Your task to perform on an android device: Open my contact list Image 0: 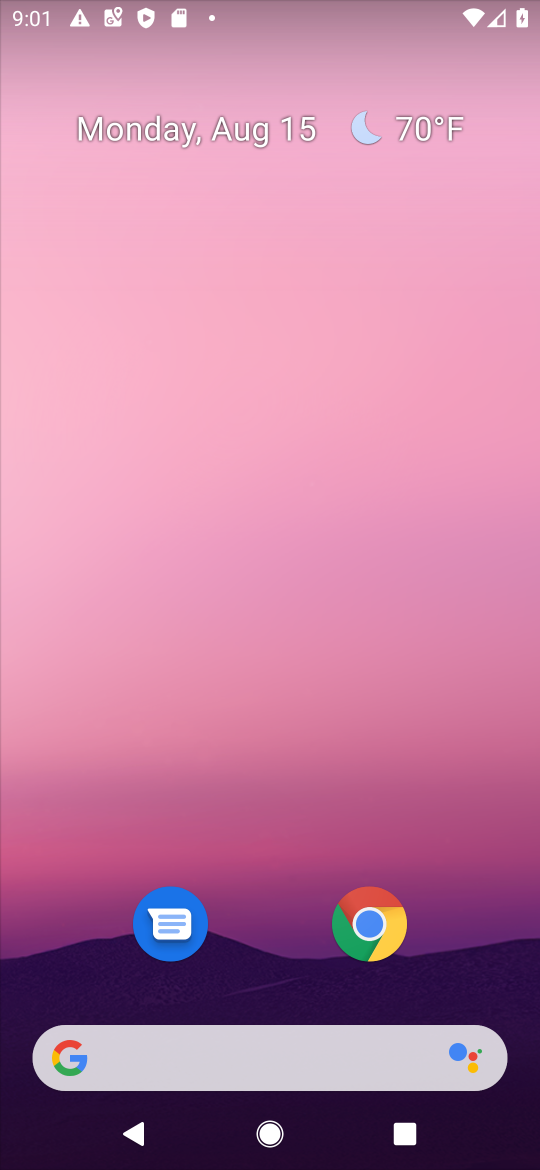
Step 0: drag from (443, 926) to (450, 126)
Your task to perform on an android device: Open my contact list Image 1: 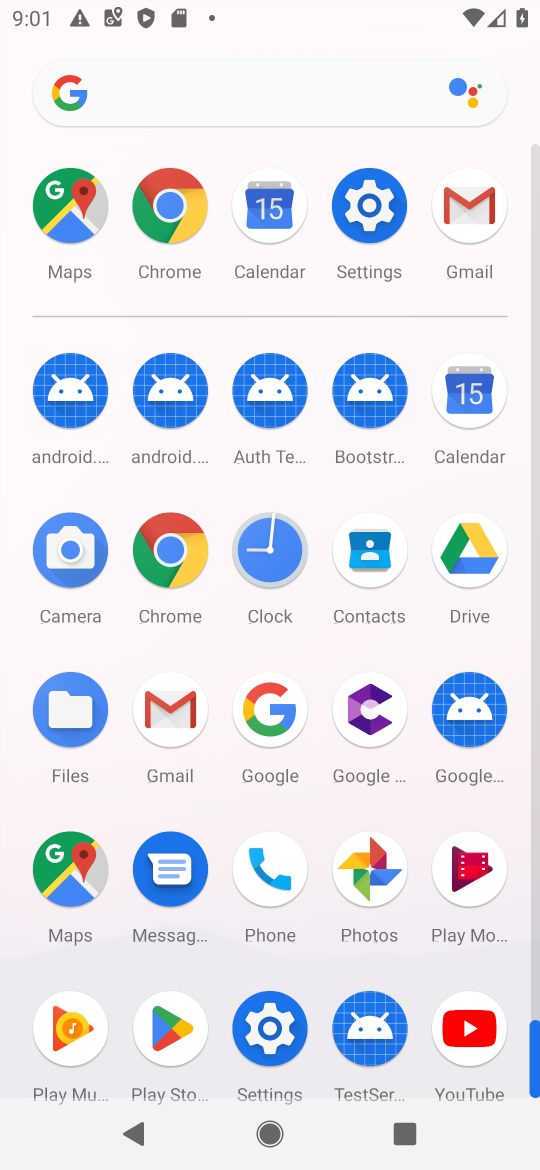
Step 1: click (373, 550)
Your task to perform on an android device: Open my contact list Image 2: 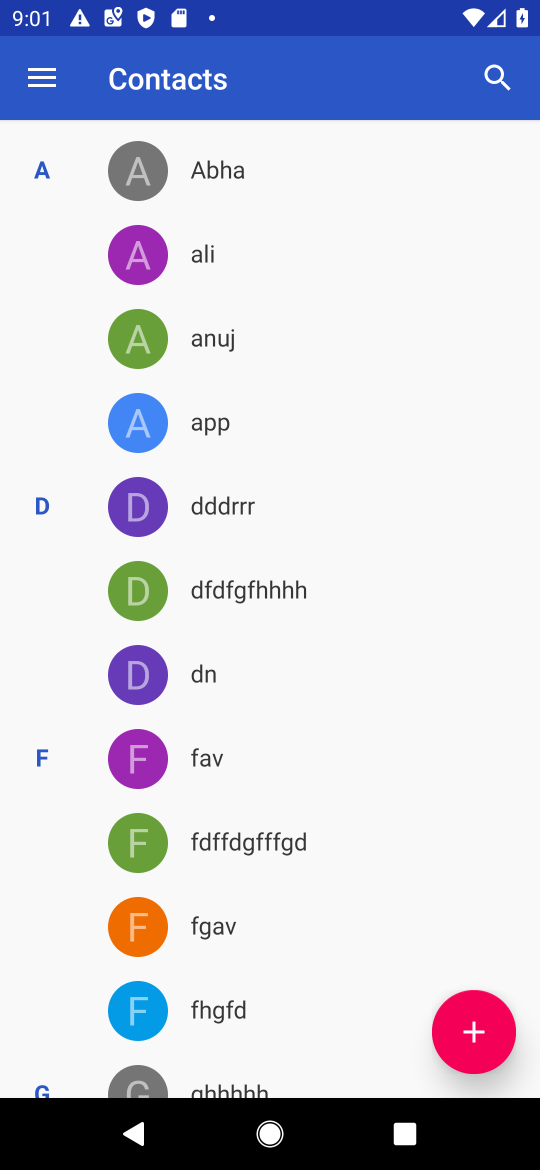
Step 2: task complete